Your task to perform on an android device: move an email to a new category in the gmail app Image 0: 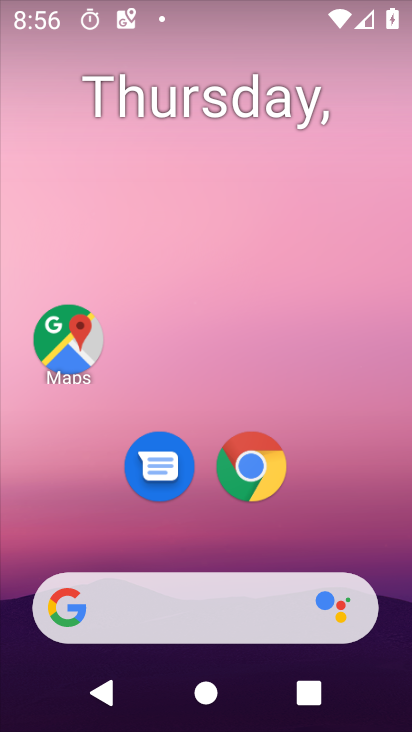
Step 0: drag from (344, 496) to (302, 100)
Your task to perform on an android device: move an email to a new category in the gmail app Image 1: 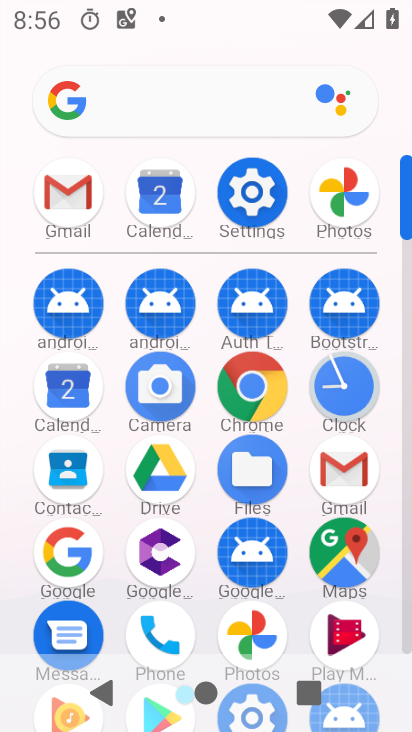
Step 1: click (63, 209)
Your task to perform on an android device: move an email to a new category in the gmail app Image 2: 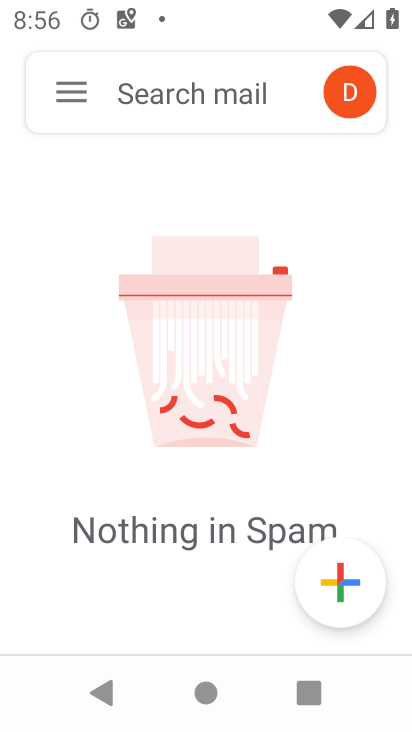
Step 2: click (78, 79)
Your task to perform on an android device: move an email to a new category in the gmail app Image 3: 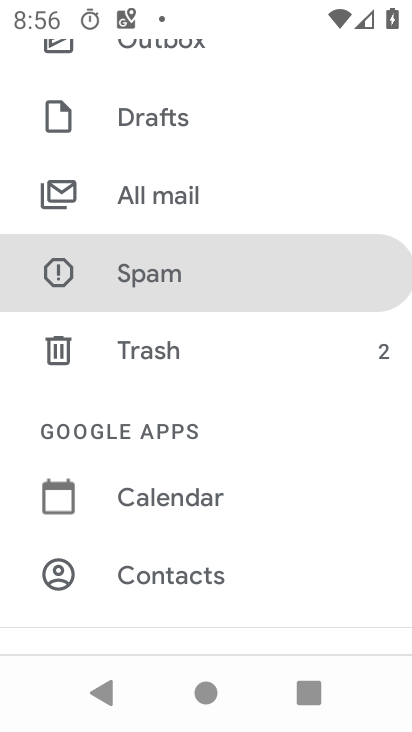
Step 3: click (200, 201)
Your task to perform on an android device: move an email to a new category in the gmail app Image 4: 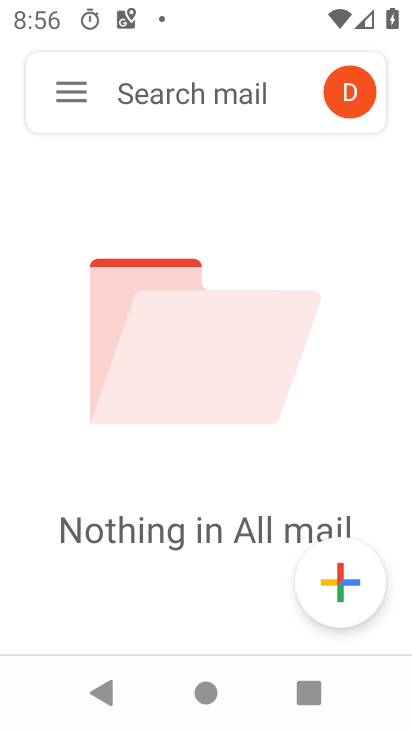
Step 4: task complete